Your task to perform on an android device: Open the calendar and show me this week's events Image 0: 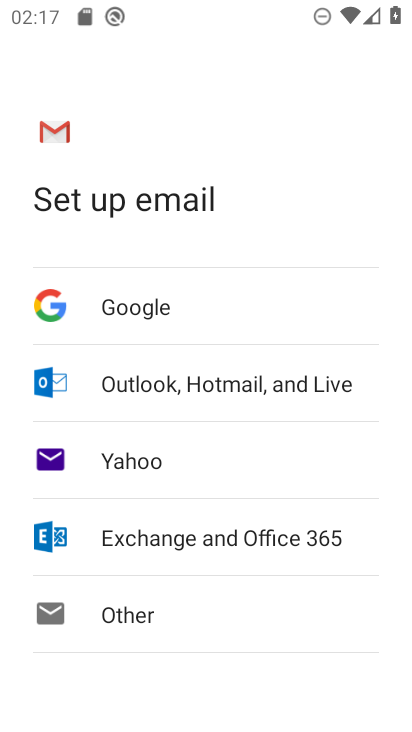
Step 0: press home button
Your task to perform on an android device: Open the calendar and show me this week's events Image 1: 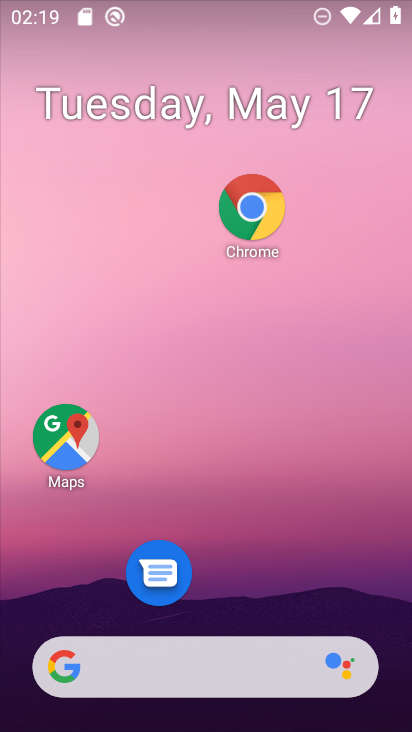
Step 1: drag from (266, 543) to (267, 111)
Your task to perform on an android device: Open the calendar and show me this week's events Image 2: 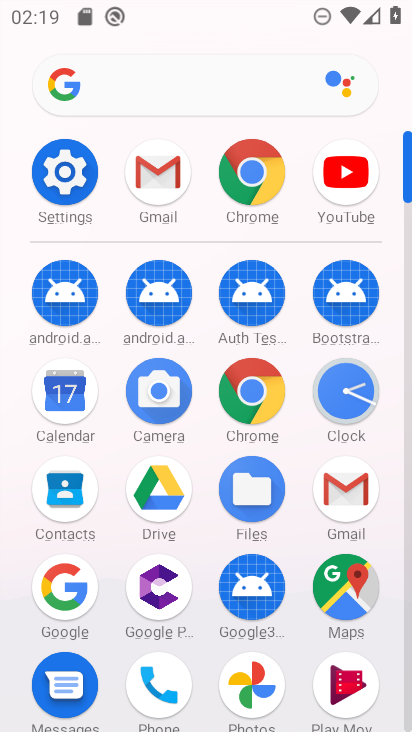
Step 2: click (76, 378)
Your task to perform on an android device: Open the calendar and show me this week's events Image 3: 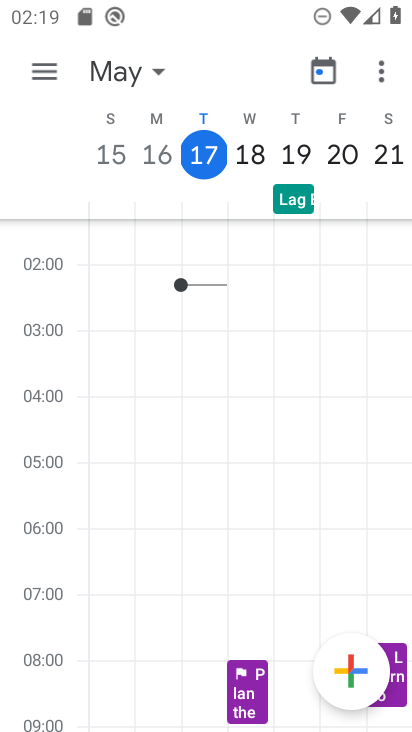
Step 3: click (43, 63)
Your task to perform on an android device: Open the calendar and show me this week's events Image 4: 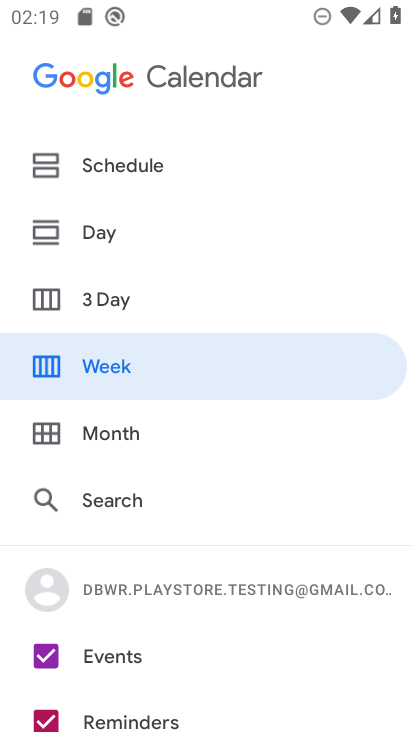
Step 4: task complete